Your task to perform on an android device: Open Google Image 0: 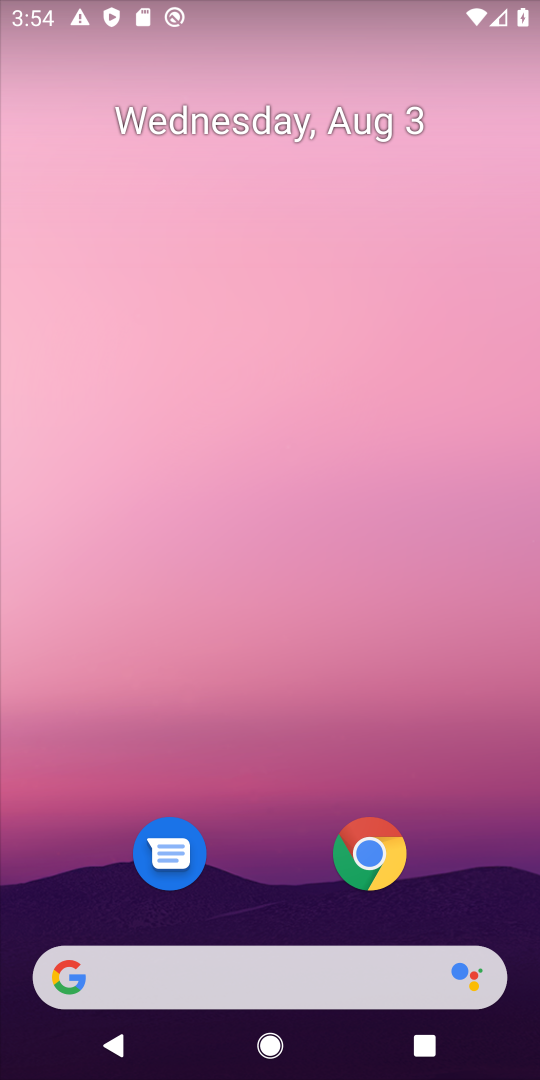
Step 0: drag from (285, 933) to (233, 87)
Your task to perform on an android device: Open Google Image 1: 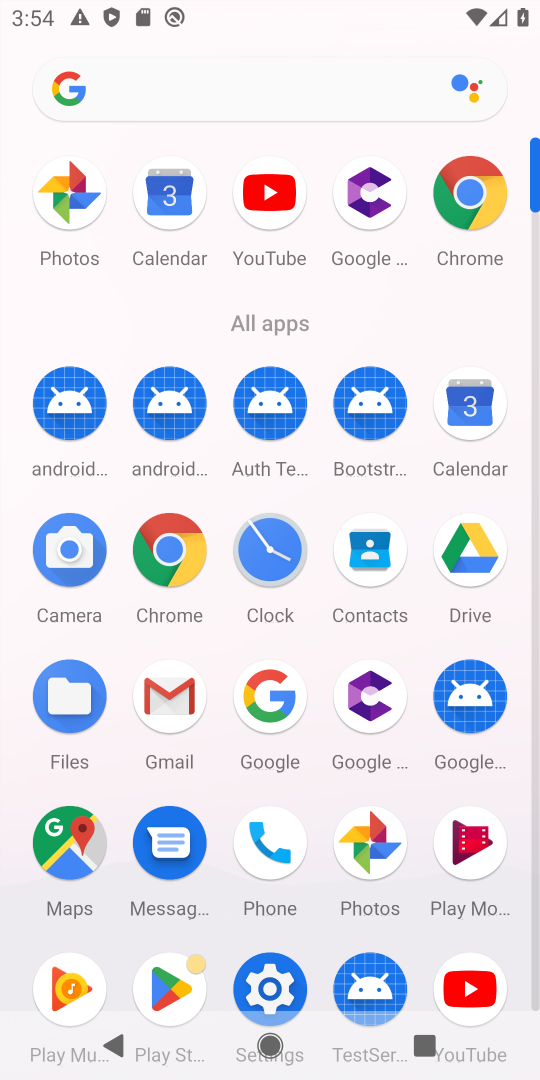
Step 1: click (266, 695)
Your task to perform on an android device: Open Google Image 2: 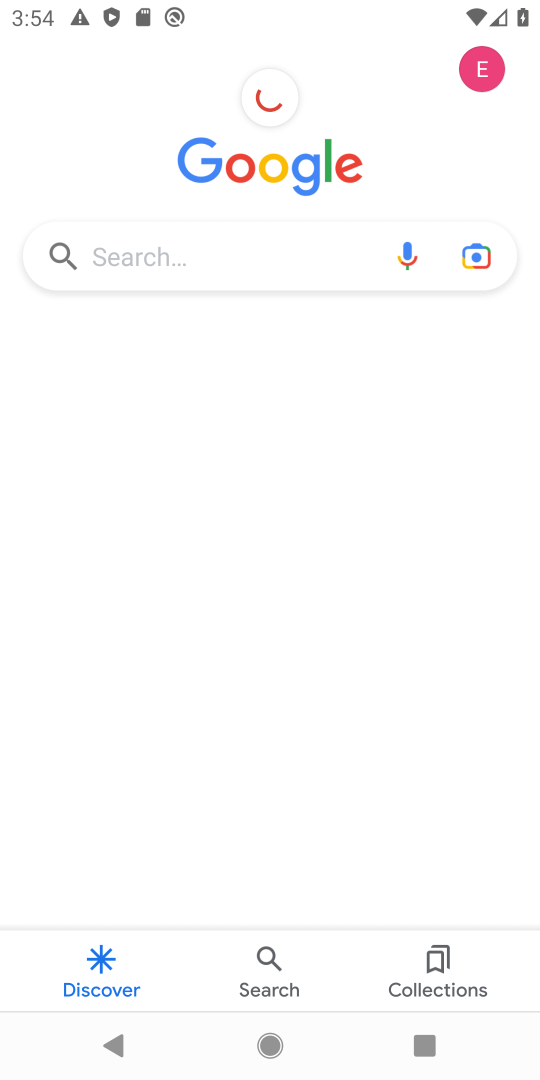
Step 2: task complete